Your task to perform on an android device: Open the stopwatch Image 0: 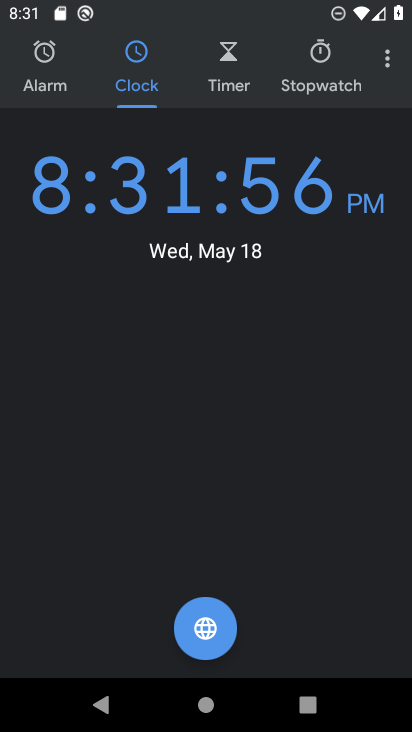
Step 0: press home button
Your task to perform on an android device: Open the stopwatch Image 1: 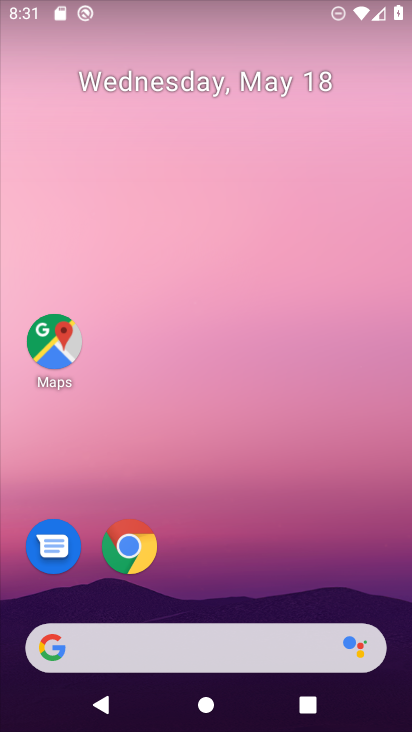
Step 1: drag from (253, 671) to (265, 325)
Your task to perform on an android device: Open the stopwatch Image 2: 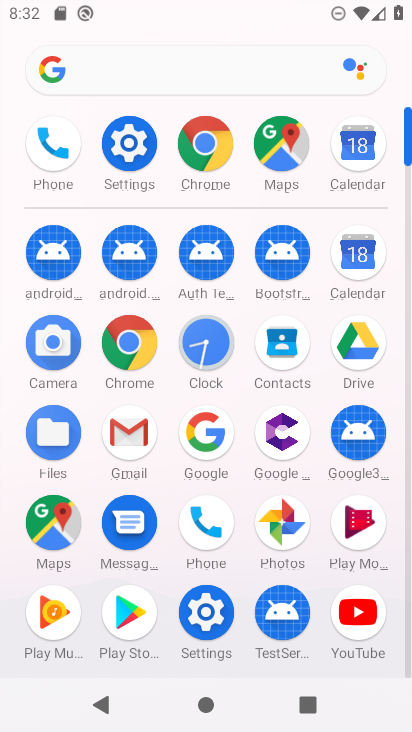
Step 2: click (218, 337)
Your task to perform on an android device: Open the stopwatch Image 3: 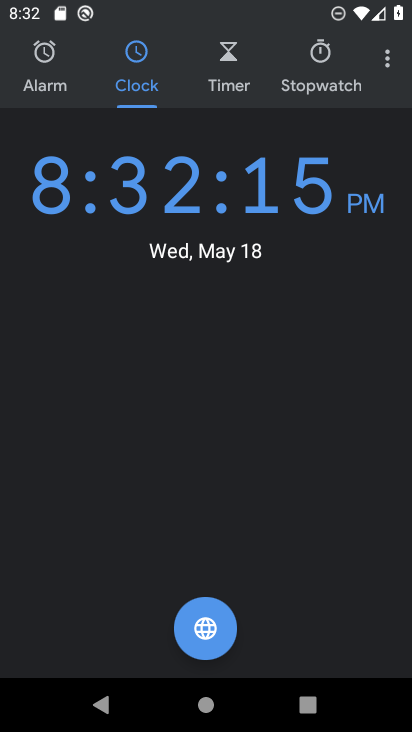
Step 3: click (383, 70)
Your task to perform on an android device: Open the stopwatch Image 4: 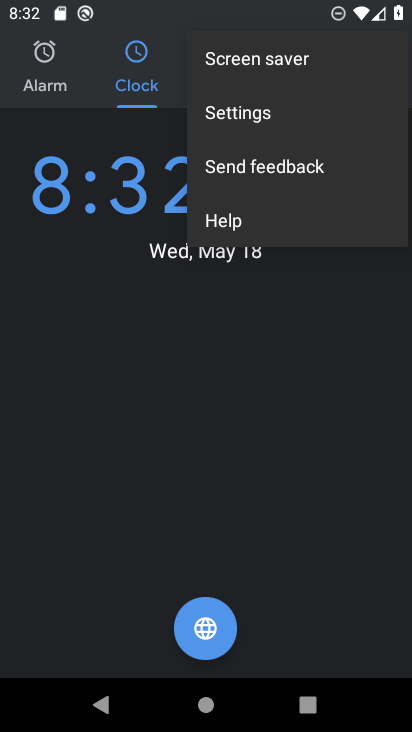
Step 4: click (169, 343)
Your task to perform on an android device: Open the stopwatch Image 5: 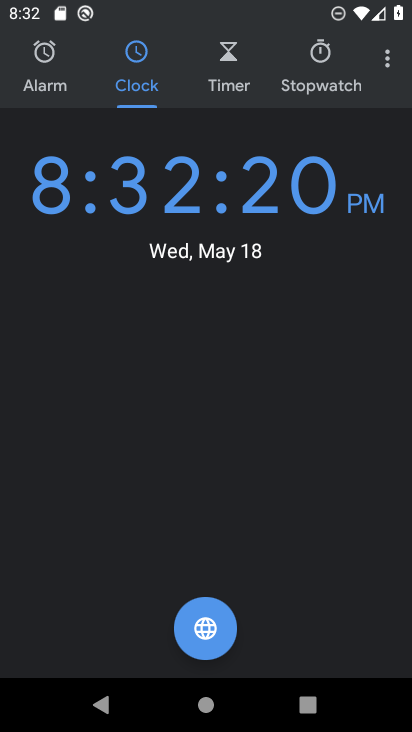
Step 5: click (311, 83)
Your task to perform on an android device: Open the stopwatch Image 6: 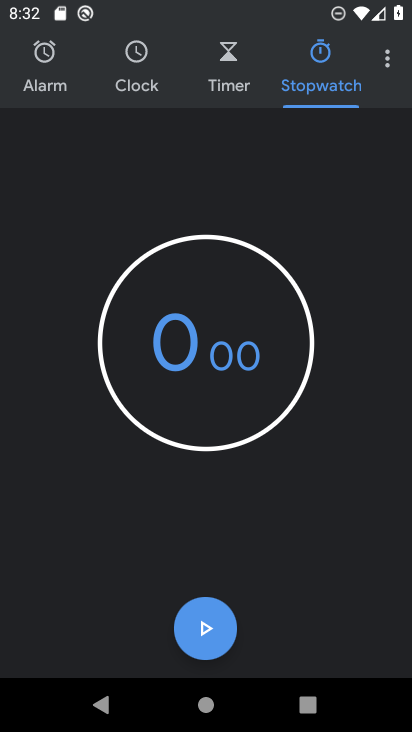
Step 6: task complete